Your task to perform on an android device: add a contact in the contacts app Image 0: 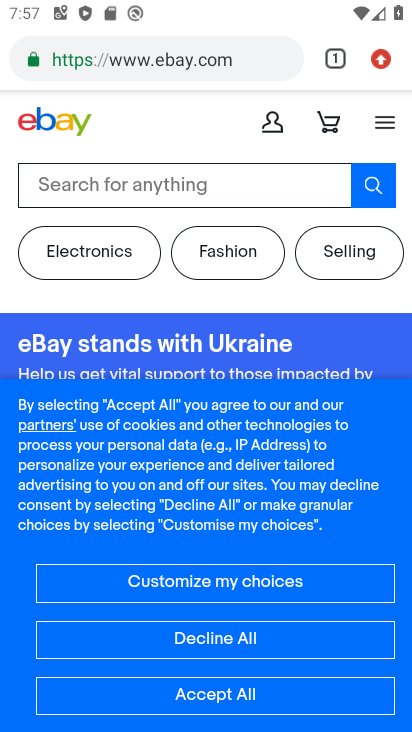
Step 0: press home button
Your task to perform on an android device: add a contact in the contacts app Image 1: 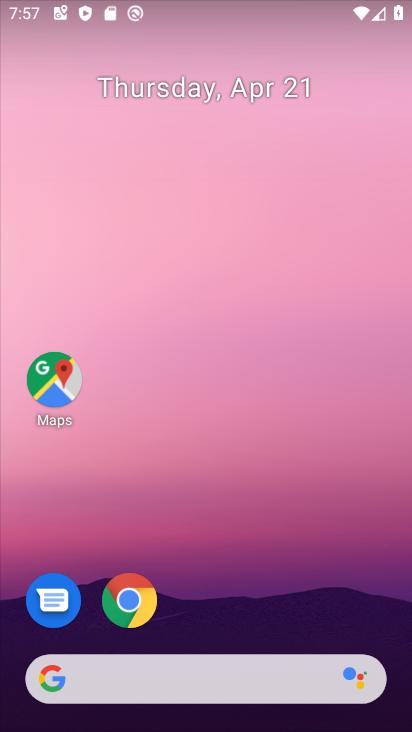
Step 1: drag from (83, 565) to (212, 250)
Your task to perform on an android device: add a contact in the contacts app Image 2: 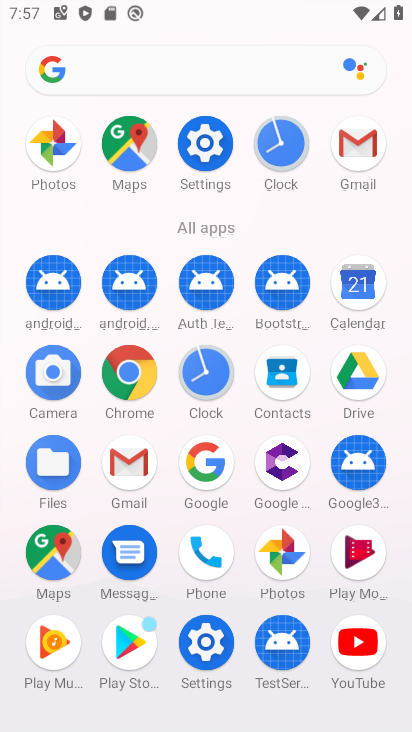
Step 2: click (206, 544)
Your task to perform on an android device: add a contact in the contacts app Image 3: 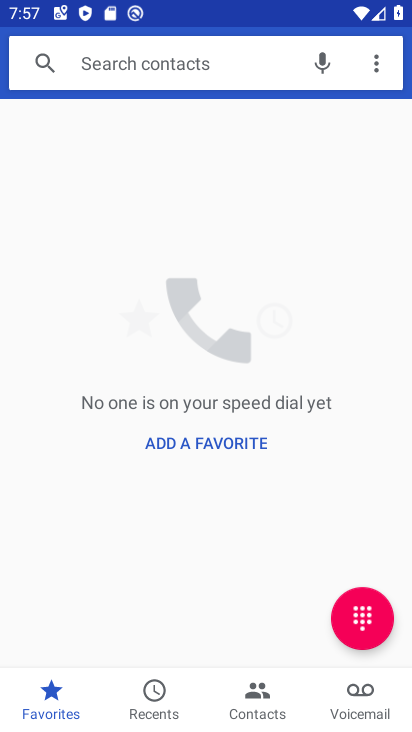
Step 3: click (257, 717)
Your task to perform on an android device: add a contact in the contacts app Image 4: 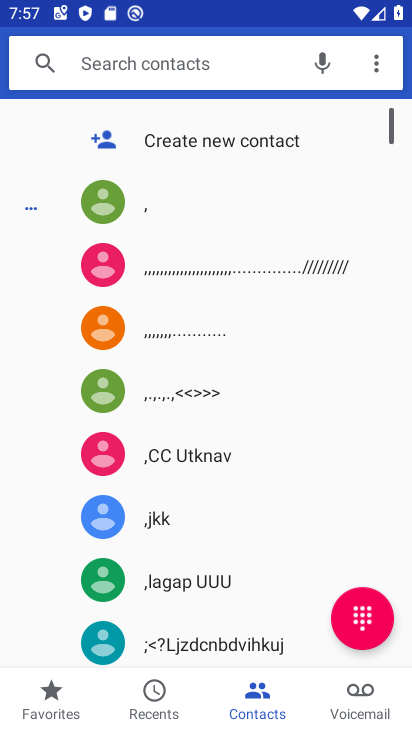
Step 4: click (273, 132)
Your task to perform on an android device: add a contact in the contacts app Image 5: 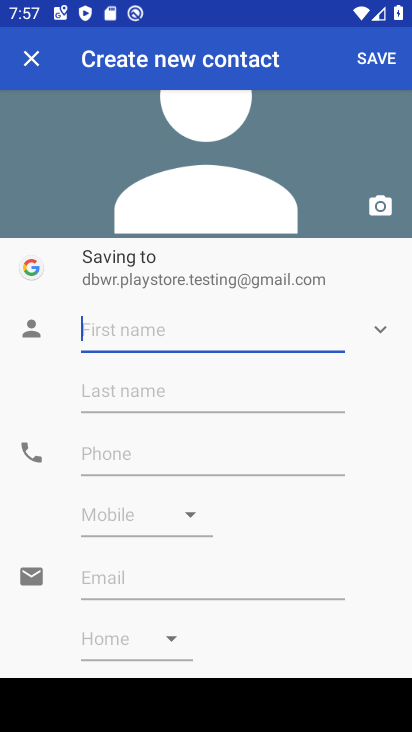
Step 5: click (170, 336)
Your task to perform on an android device: add a contact in the contacts app Image 6: 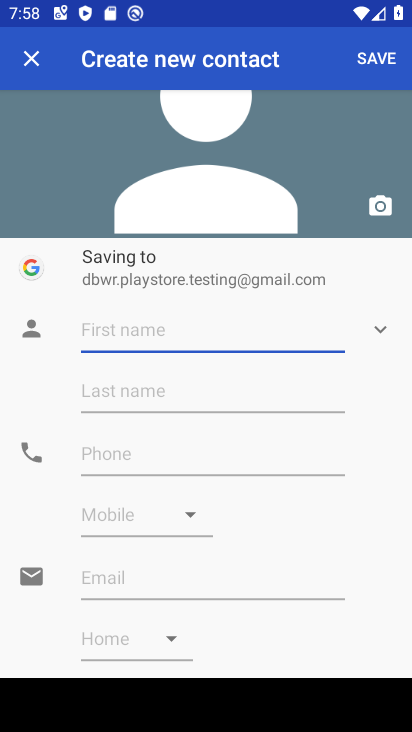
Step 6: type "bgvfcd"
Your task to perform on an android device: add a contact in the contacts app Image 7: 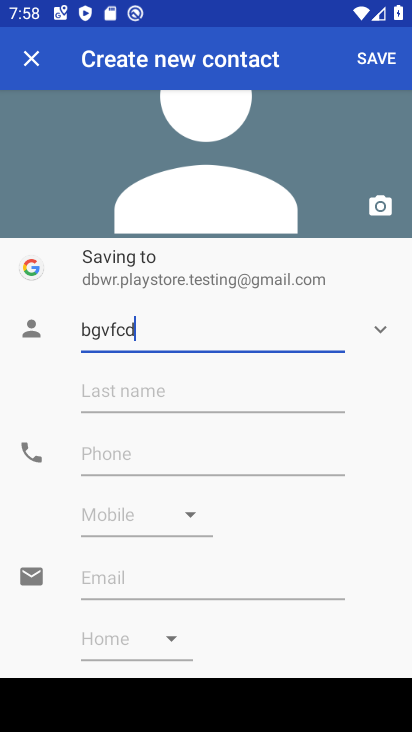
Step 7: type ""
Your task to perform on an android device: add a contact in the contacts app Image 8: 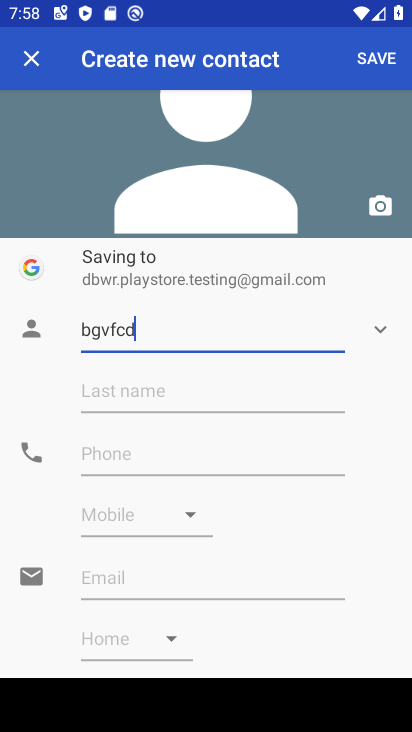
Step 8: click (365, 57)
Your task to perform on an android device: add a contact in the contacts app Image 9: 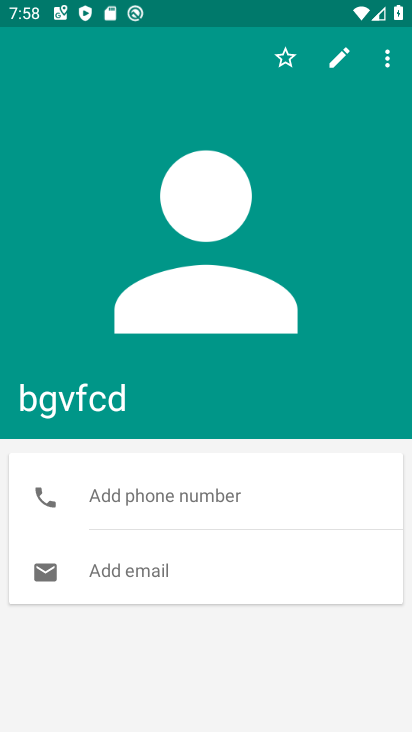
Step 9: task complete